Your task to perform on an android device: Open display settings Image 0: 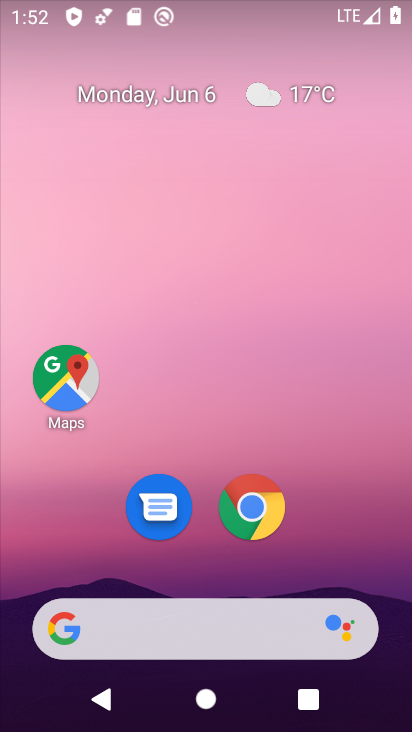
Step 0: drag from (359, 547) to (274, 194)
Your task to perform on an android device: Open display settings Image 1: 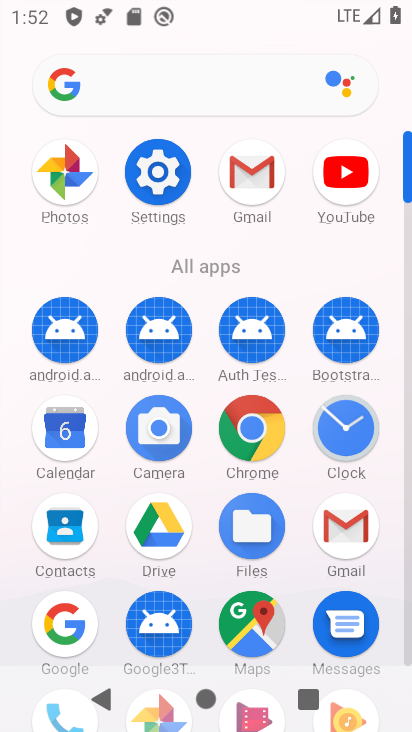
Step 1: click (146, 192)
Your task to perform on an android device: Open display settings Image 2: 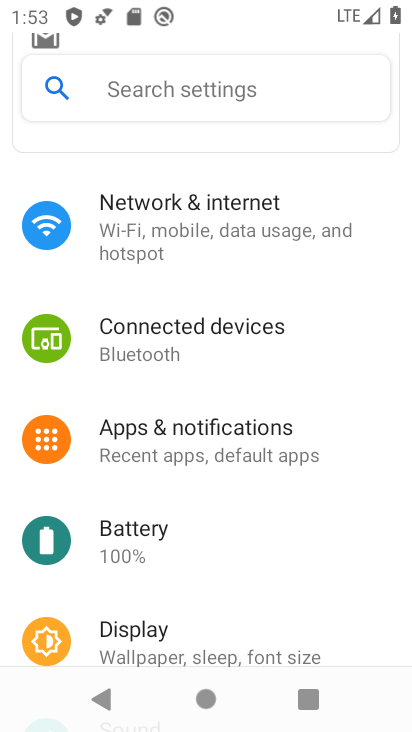
Step 2: click (272, 649)
Your task to perform on an android device: Open display settings Image 3: 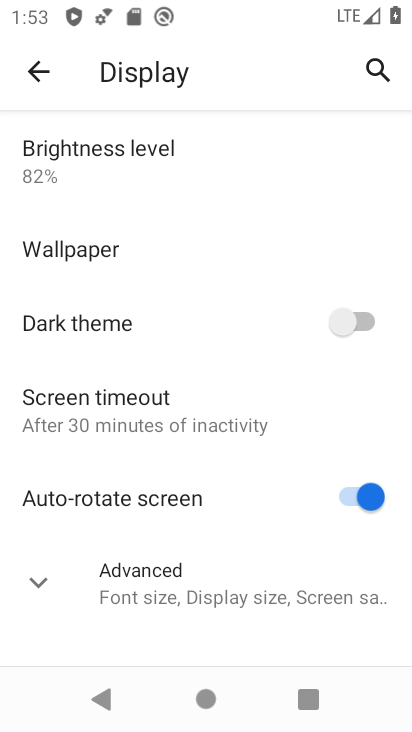
Step 3: task complete